Your task to perform on an android device: Go to sound settings Image 0: 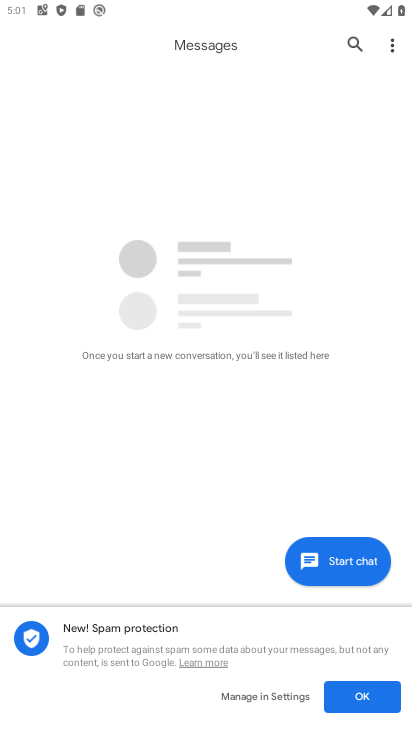
Step 0: press home button
Your task to perform on an android device: Go to sound settings Image 1: 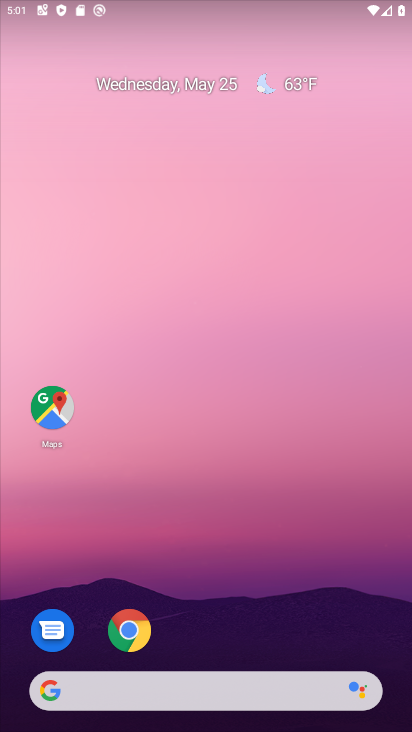
Step 1: drag from (177, 600) to (189, 12)
Your task to perform on an android device: Go to sound settings Image 2: 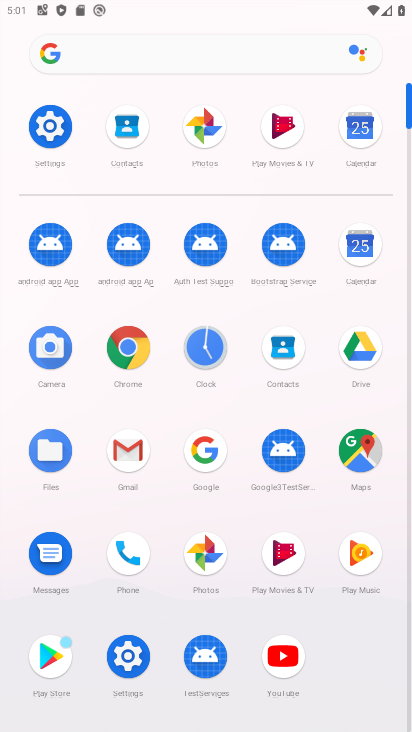
Step 2: click (57, 122)
Your task to perform on an android device: Go to sound settings Image 3: 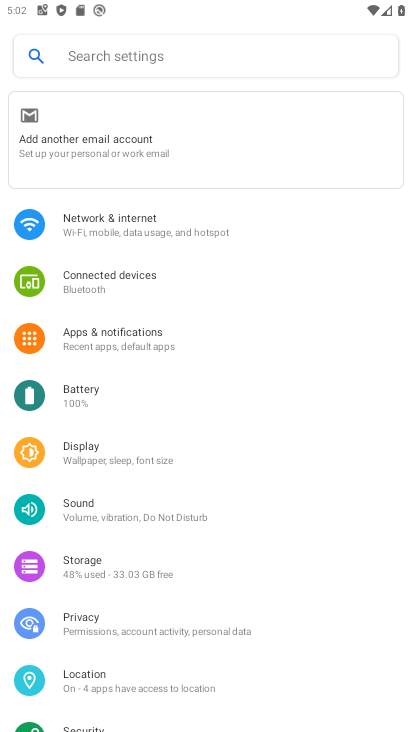
Step 3: click (87, 514)
Your task to perform on an android device: Go to sound settings Image 4: 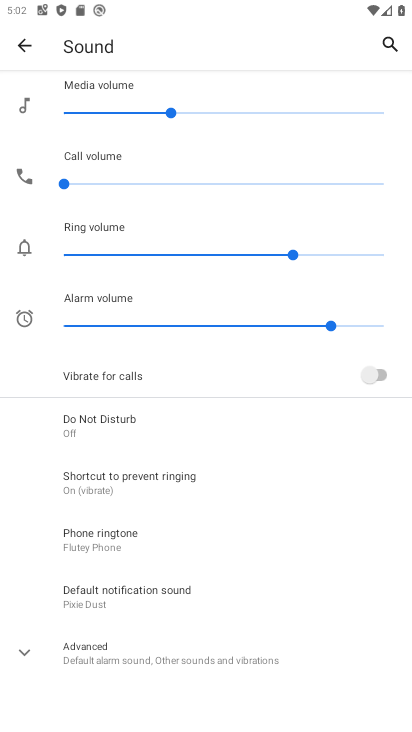
Step 4: task complete